Your task to perform on an android device: When is my next meeting? Image 0: 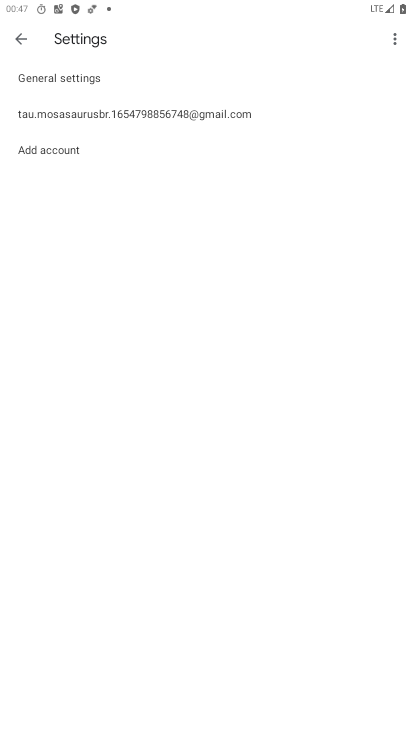
Step 0: press home button
Your task to perform on an android device: When is my next meeting? Image 1: 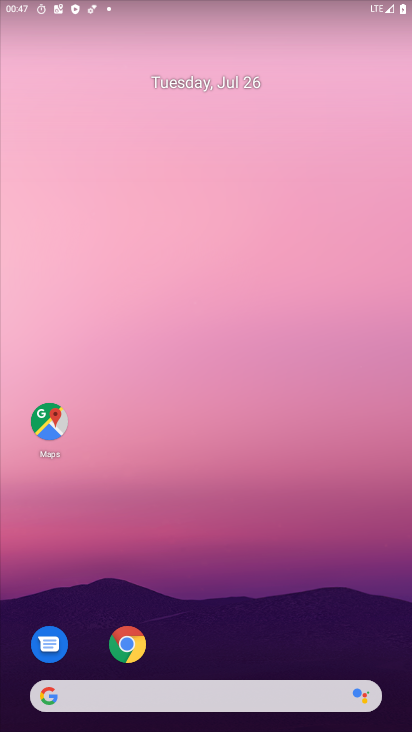
Step 1: drag from (193, 649) to (199, 51)
Your task to perform on an android device: When is my next meeting? Image 2: 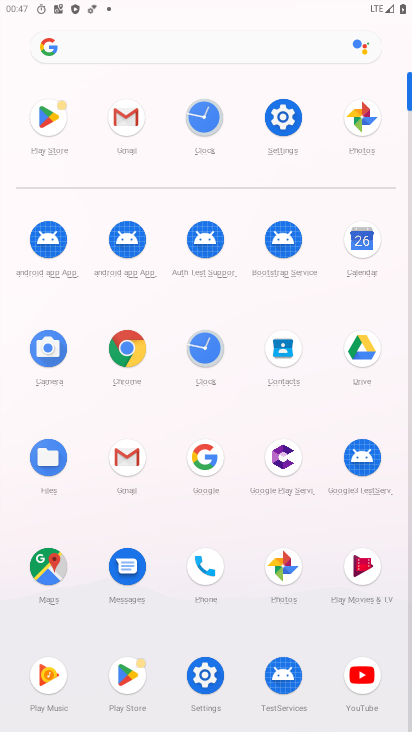
Step 2: click (361, 244)
Your task to perform on an android device: When is my next meeting? Image 3: 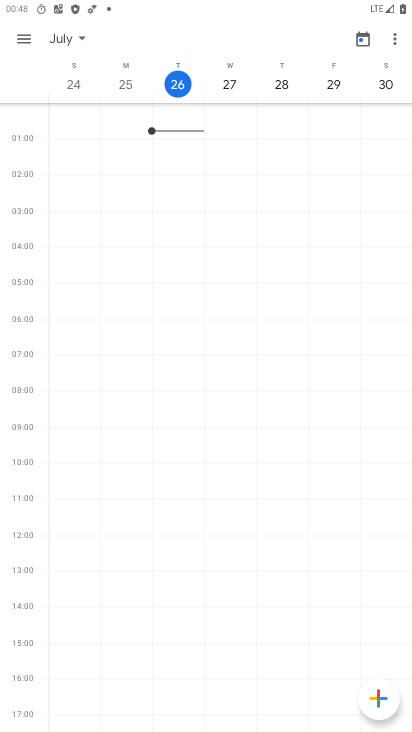
Step 3: click (21, 43)
Your task to perform on an android device: When is my next meeting? Image 4: 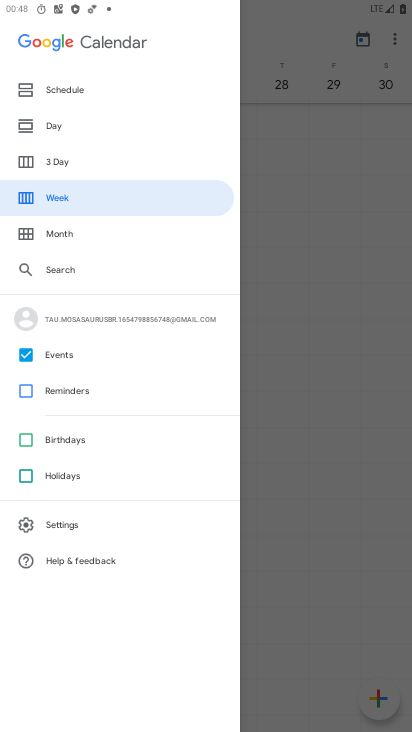
Step 4: click (26, 77)
Your task to perform on an android device: When is my next meeting? Image 5: 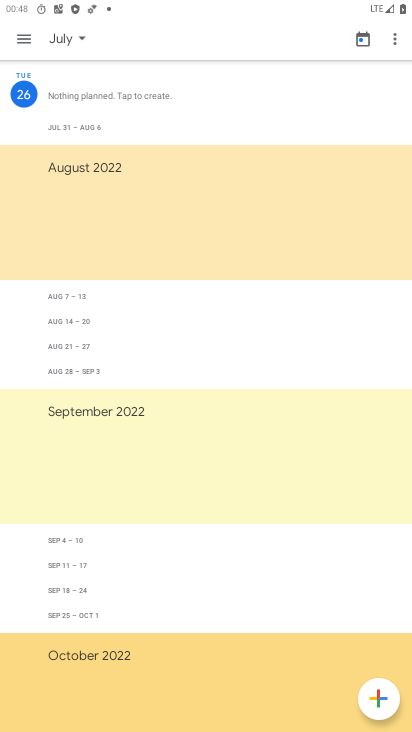
Step 5: click (17, 38)
Your task to perform on an android device: When is my next meeting? Image 6: 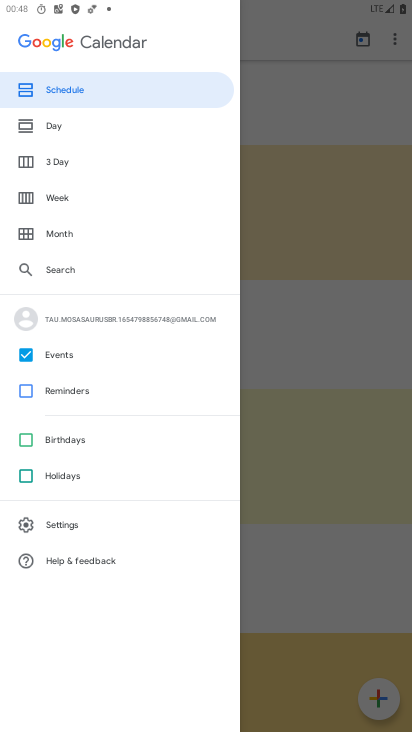
Step 6: click (27, 390)
Your task to perform on an android device: When is my next meeting? Image 7: 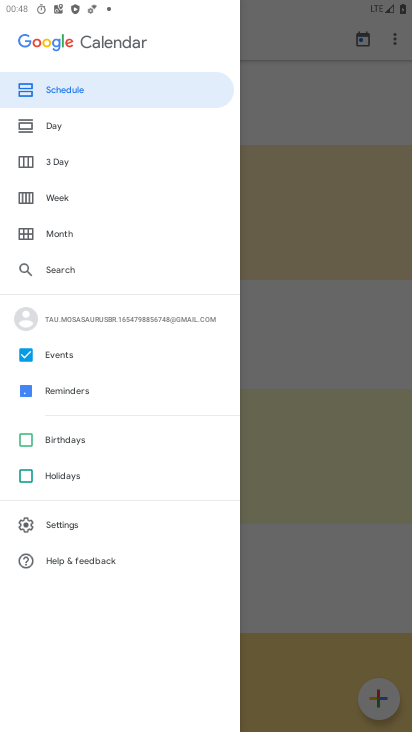
Step 7: click (31, 440)
Your task to perform on an android device: When is my next meeting? Image 8: 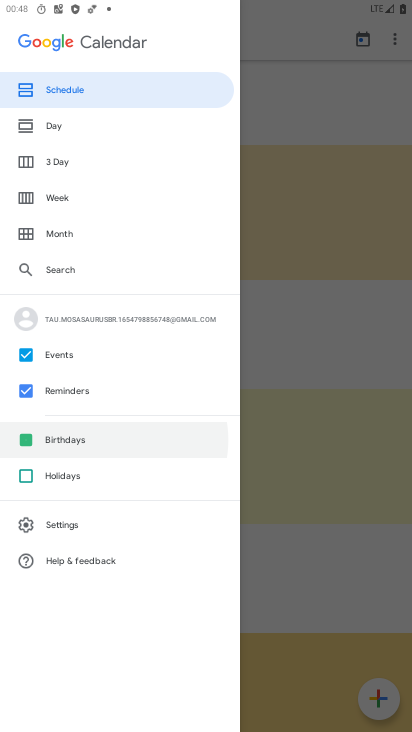
Step 8: click (21, 481)
Your task to perform on an android device: When is my next meeting? Image 9: 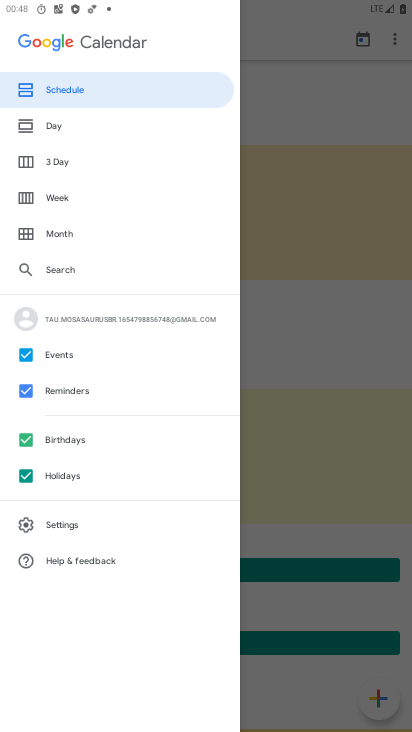
Step 9: click (52, 92)
Your task to perform on an android device: When is my next meeting? Image 10: 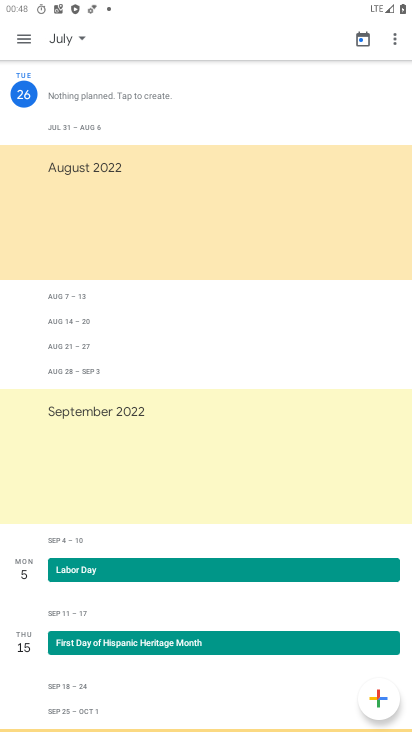
Step 10: click (83, 41)
Your task to perform on an android device: When is my next meeting? Image 11: 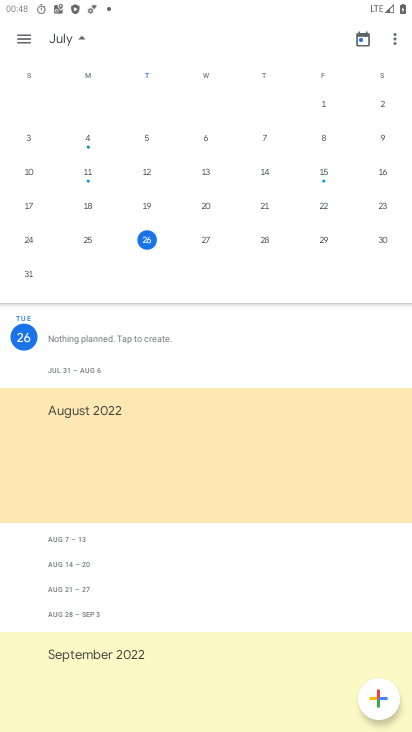
Step 11: click (89, 352)
Your task to perform on an android device: When is my next meeting? Image 12: 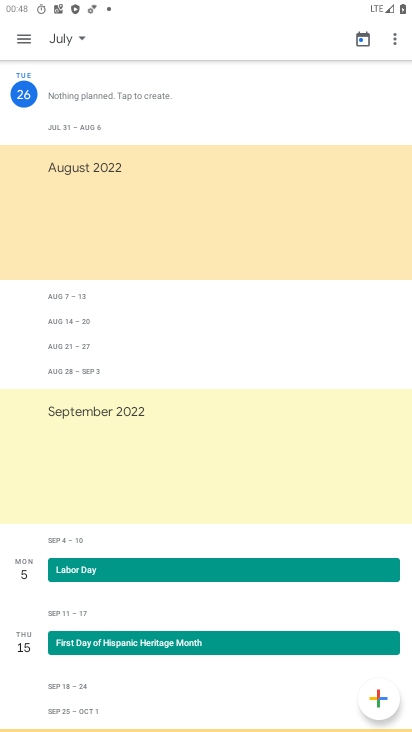
Step 12: drag from (89, 349) to (101, 176)
Your task to perform on an android device: When is my next meeting? Image 13: 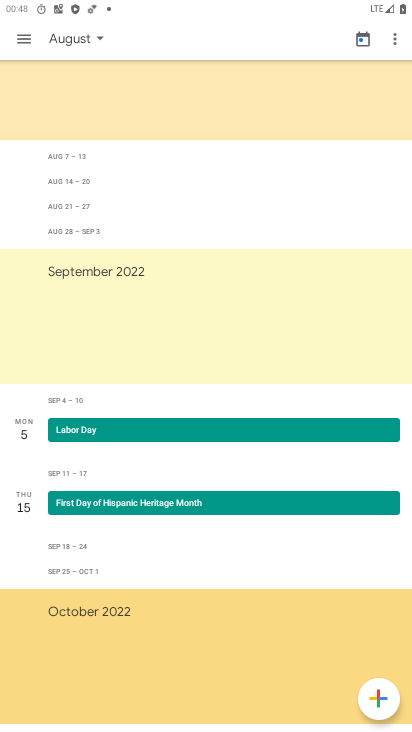
Step 13: drag from (122, 548) to (132, 202)
Your task to perform on an android device: When is my next meeting? Image 14: 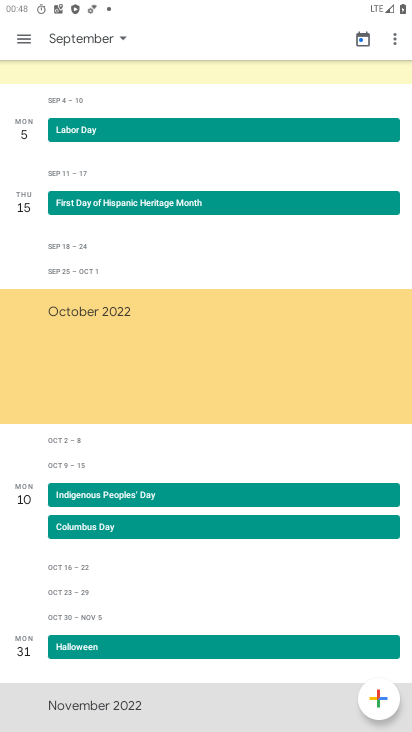
Step 14: drag from (113, 546) to (130, 254)
Your task to perform on an android device: When is my next meeting? Image 15: 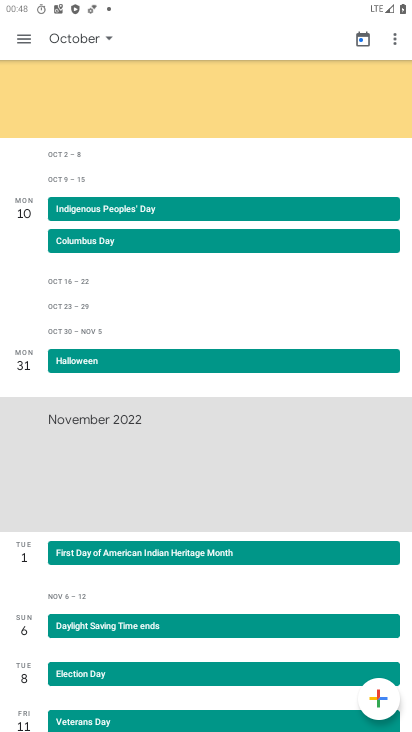
Step 15: drag from (111, 484) to (107, 240)
Your task to perform on an android device: When is my next meeting? Image 16: 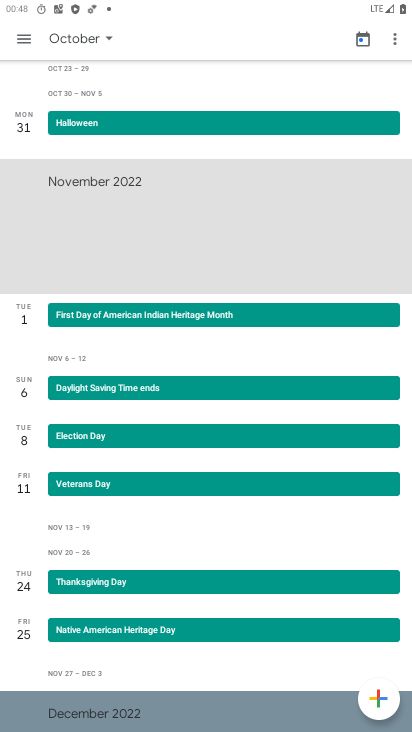
Step 16: drag from (86, 541) to (110, 243)
Your task to perform on an android device: When is my next meeting? Image 17: 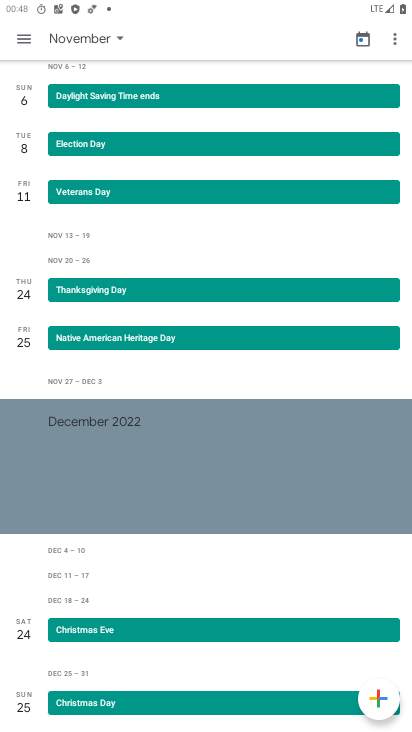
Step 17: drag from (103, 565) to (125, 324)
Your task to perform on an android device: When is my next meeting? Image 18: 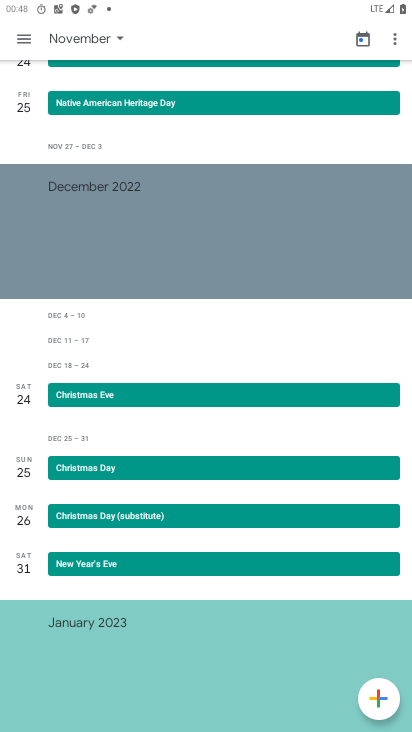
Step 18: drag from (136, 267) to (154, 715)
Your task to perform on an android device: When is my next meeting? Image 19: 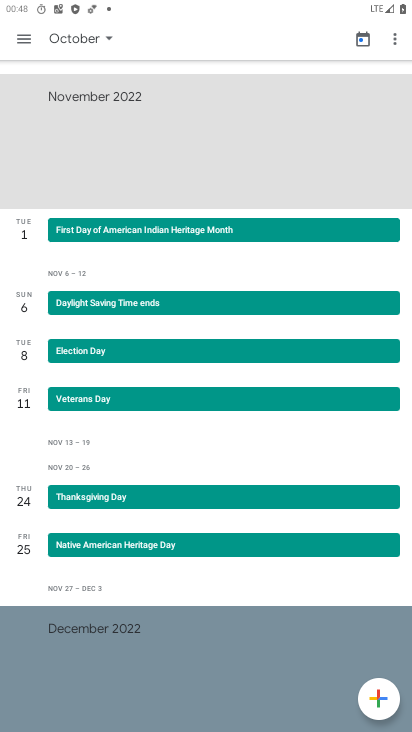
Step 19: drag from (155, 283) to (165, 655)
Your task to perform on an android device: When is my next meeting? Image 20: 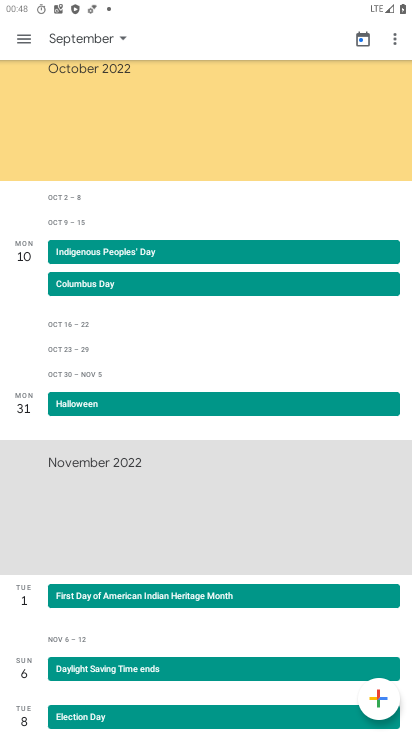
Step 20: drag from (149, 242) to (169, 608)
Your task to perform on an android device: When is my next meeting? Image 21: 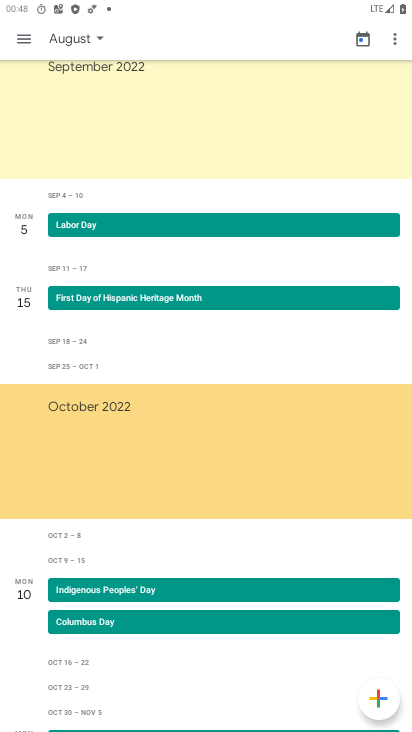
Step 21: drag from (143, 224) to (143, 572)
Your task to perform on an android device: When is my next meeting? Image 22: 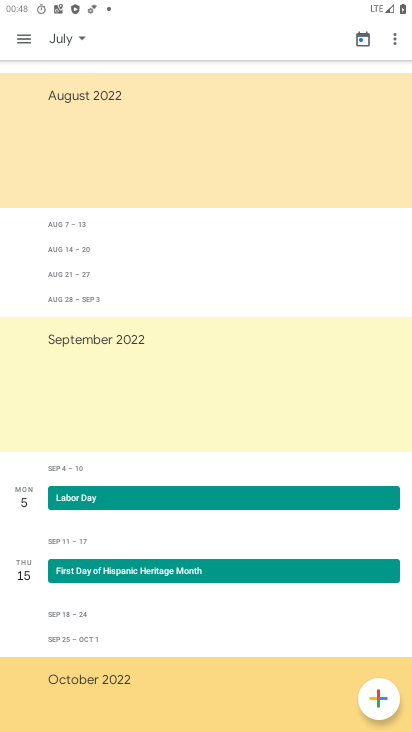
Step 22: drag from (94, 180) to (153, 679)
Your task to perform on an android device: When is my next meeting? Image 23: 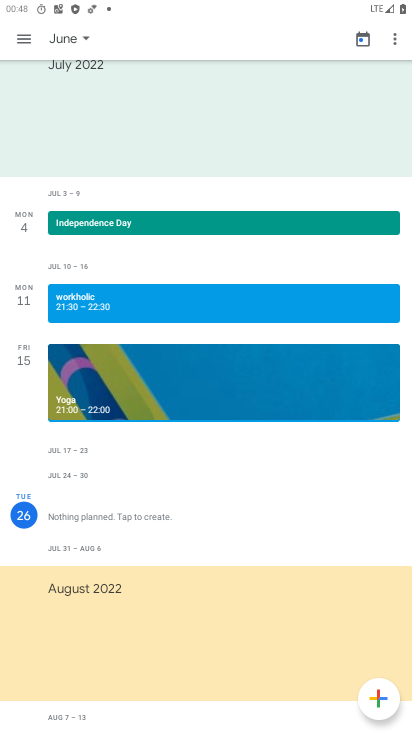
Step 23: click (26, 37)
Your task to perform on an android device: When is my next meeting? Image 24: 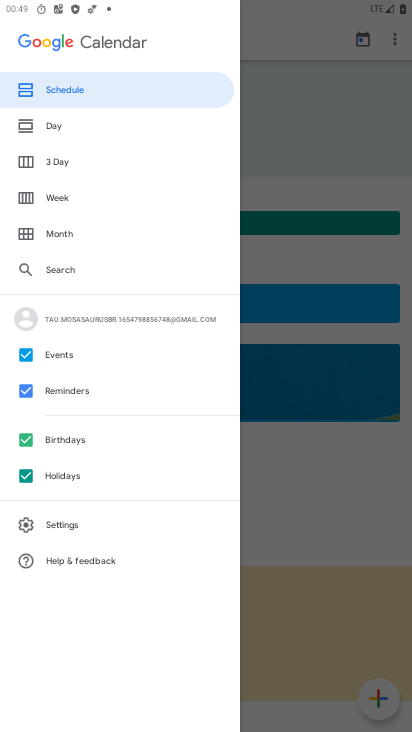
Step 24: click (49, 234)
Your task to perform on an android device: When is my next meeting? Image 25: 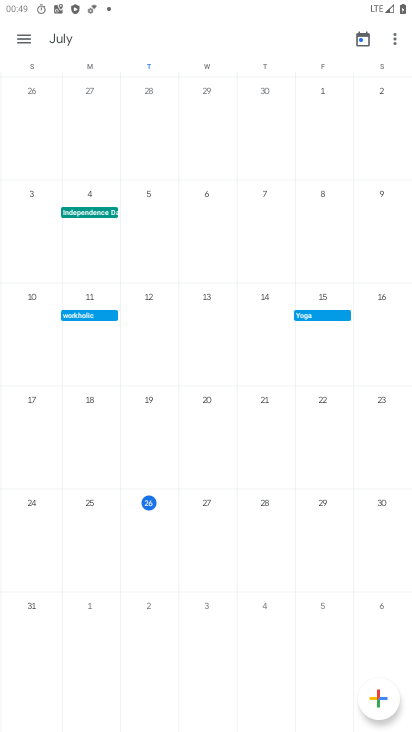
Step 25: task complete